Your task to perform on an android device: turn off notifications in google photos Image 0: 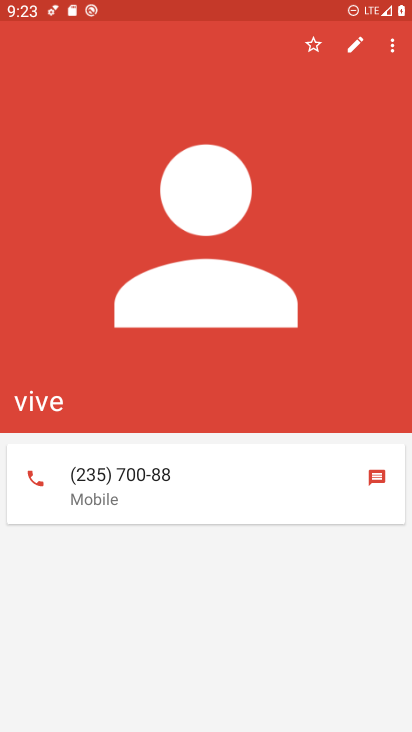
Step 0: press home button
Your task to perform on an android device: turn off notifications in google photos Image 1: 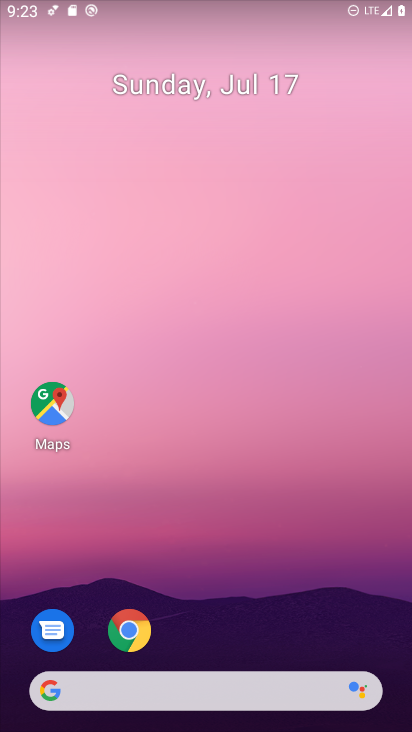
Step 1: drag from (251, 646) to (259, 209)
Your task to perform on an android device: turn off notifications in google photos Image 2: 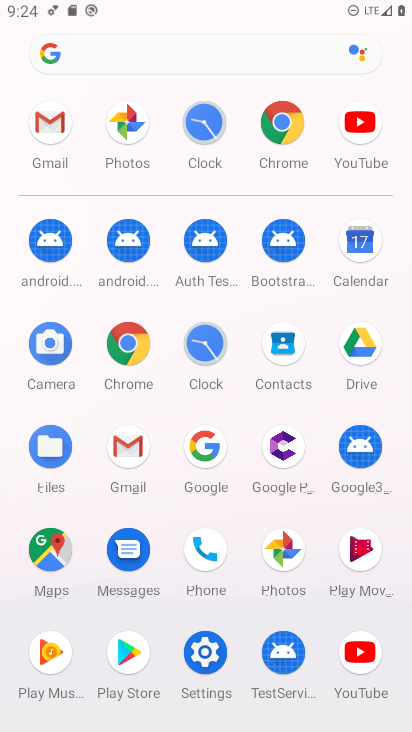
Step 2: click (297, 544)
Your task to perform on an android device: turn off notifications in google photos Image 3: 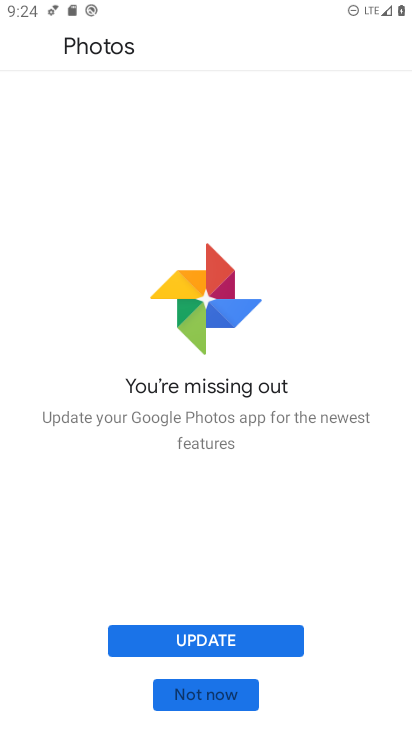
Step 3: click (189, 699)
Your task to perform on an android device: turn off notifications in google photos Image 4: 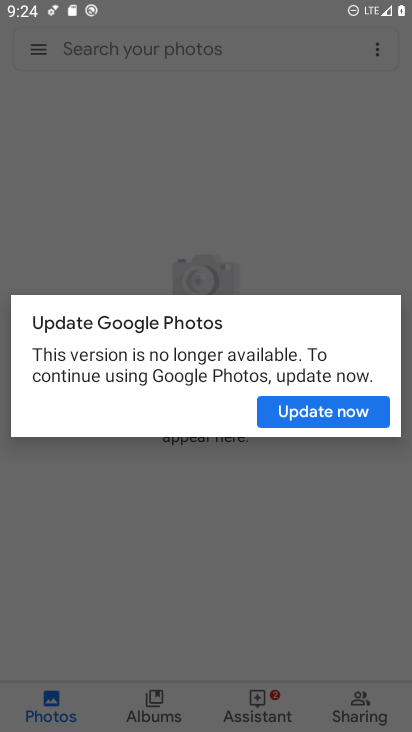
Step 4: task complete